Your task to perform on an android device: Go to sound settings Image 0: 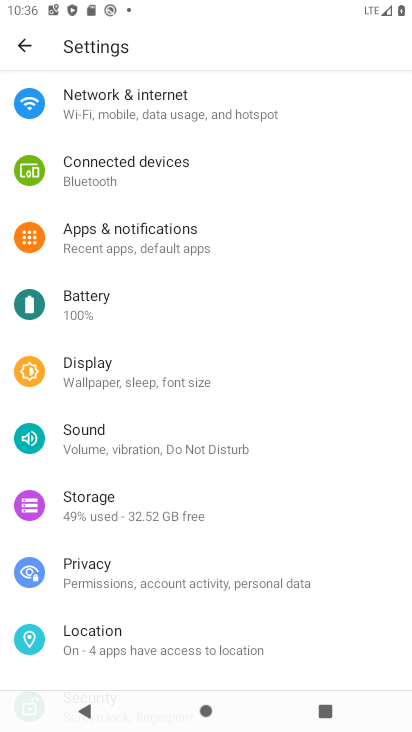
Step 0: click (135, 445)
Your task to perform on an android device: Go to sound settings Image 1: 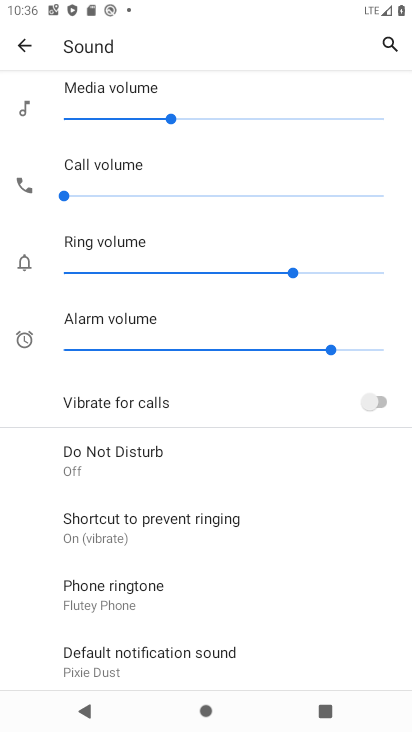
Step 1: task complete